Your task to perform on an android device: find photos in the google photos app Image 0: 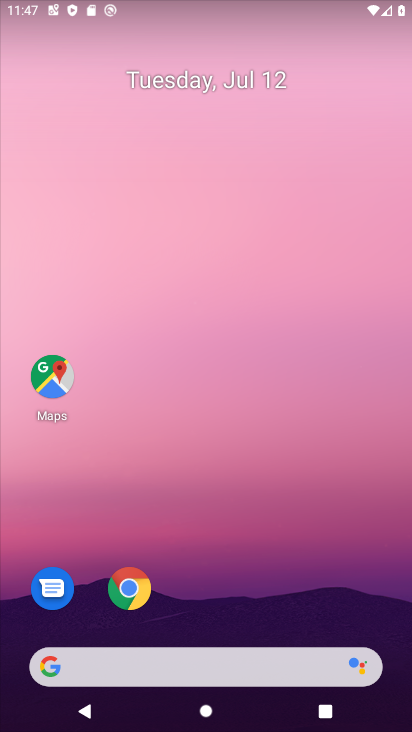
Step 0: drag from (397, 666) to (383, 157)
Your task to perform on an android device: find photos in the google photos app Image 1: 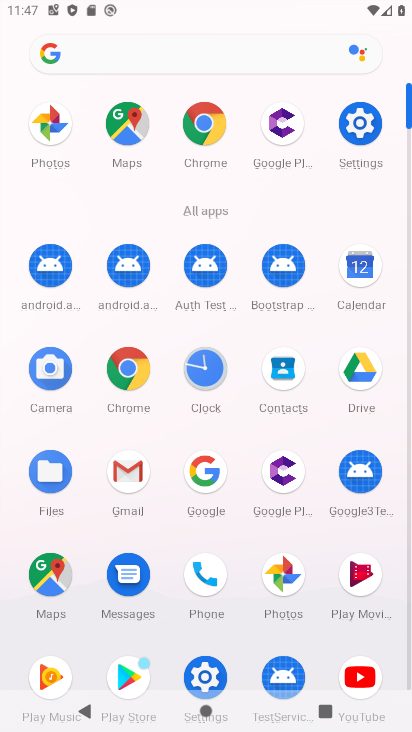
Step 1: click (268, 578)
Your task to perform on an android device: find photos in the google photos app Image 2: 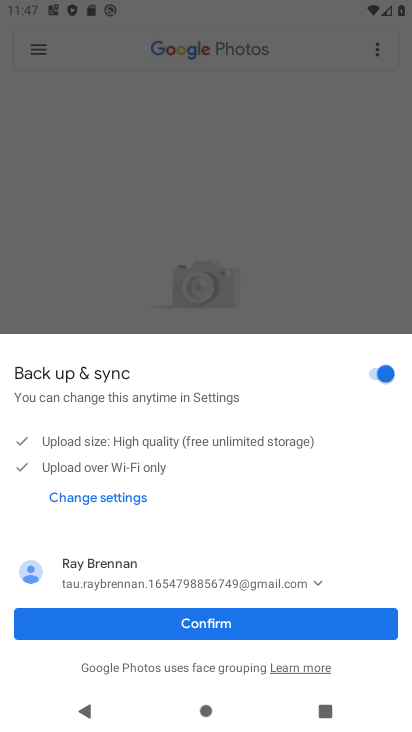
Step 2: click (320, 621)
Your task to perform on an android device: find photos in the google photos app Image 3: 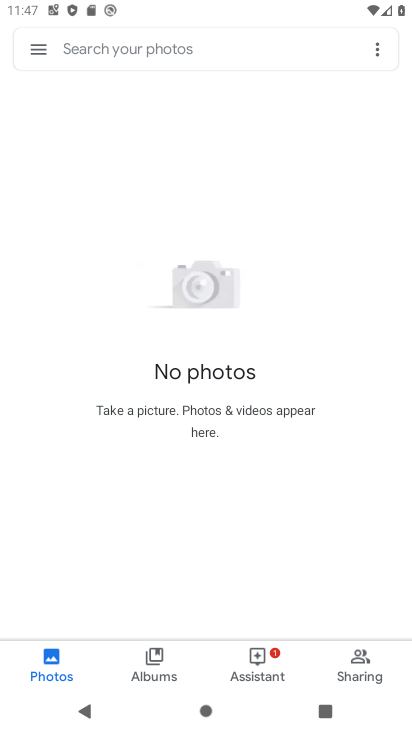
Step 3: task complete